Your task to perform on an android device: toggle javascript in the chrome app Image 0: 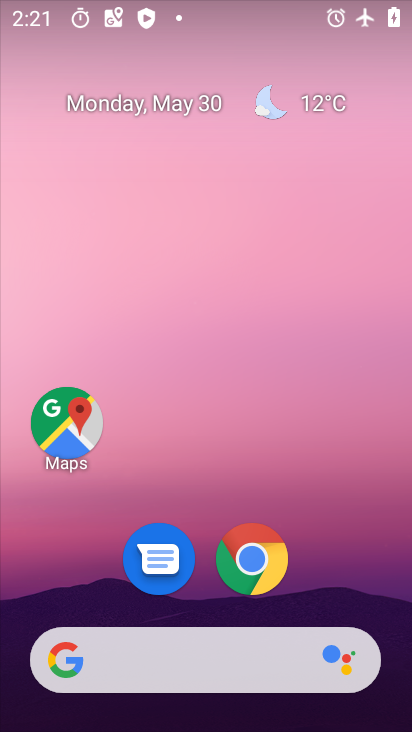
Step 0: click (258, 559)
Your task to perform on an android device: toggle javascript in the chrome app Image 1: 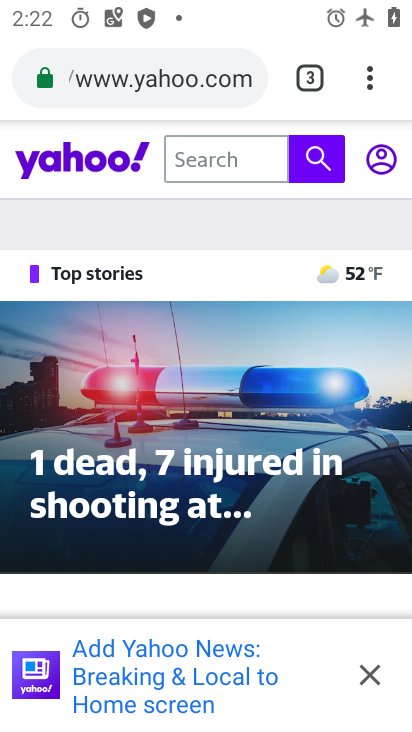
Step 1: drag from (365, 74) to (119, 621)
Your task to perform on an android device: toggle javascript in the chrome app Image 2: 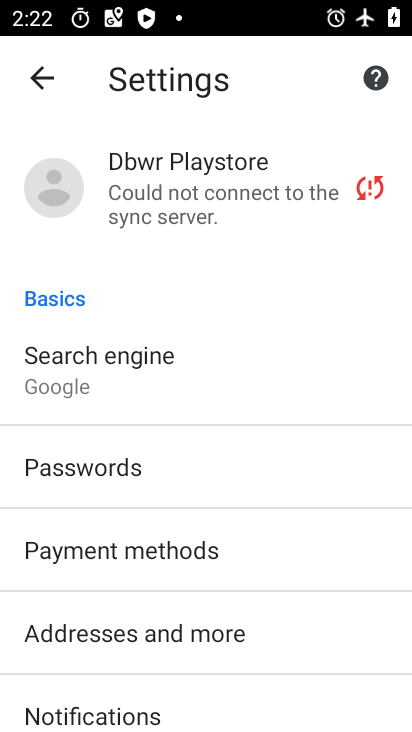
Step 2: drag from (130, 631) to (232, 114)
Your task to perform on an android device: toggle javascript in the chrome app Image 3: 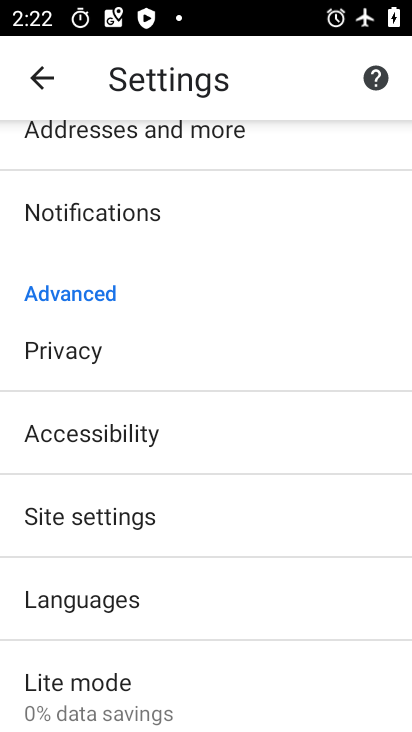
Step 3: click (86, 513)
Your task to perform on an android device: toggle javascript in the chrome app Image 4: 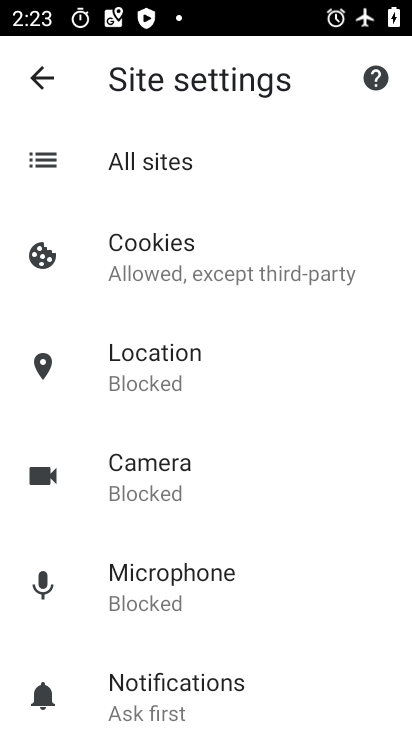
Step 4: drag from (172, 673) to (253, 193)
Your task to perform on an android device: toggle javascript in the chrome app Image 5: 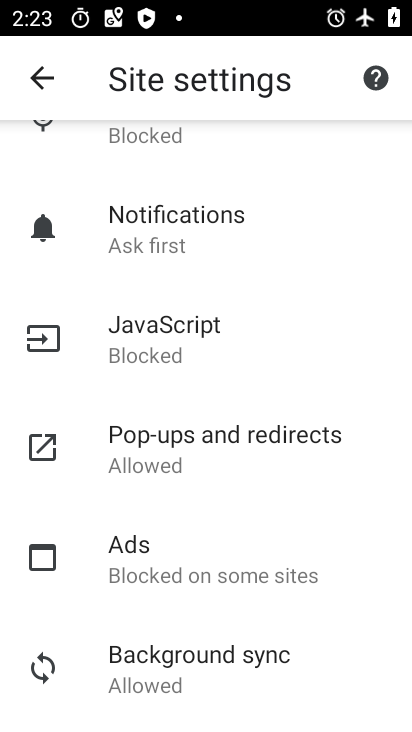
Step 5: click (128, 350)
Your task to perform on an android device: toggle javascript in the chrome app Image 6: 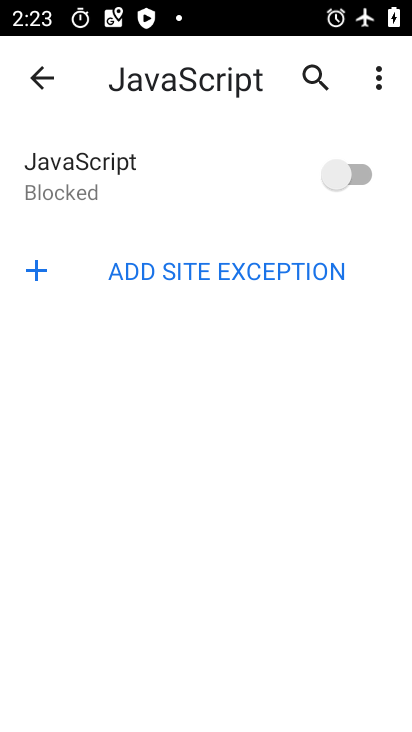
Step 6: click (333, 153)
Your task to perform on an android device: toggle javascript in the chrome app Image 7: 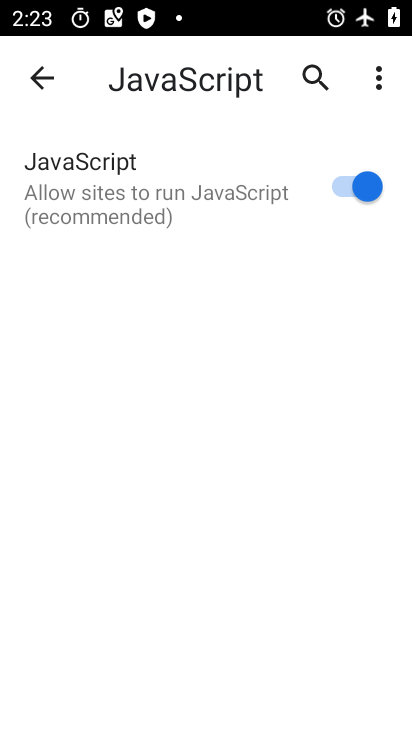
Step 7: task complete